Your task to perform on an android device: Go to privacy settings Image 0: 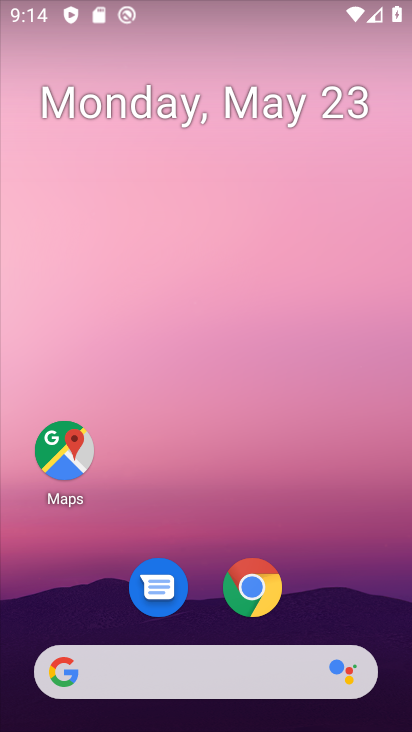
Step 0: drag from (354, 529) to (306, 132)
Your task to perform on an android device: Go to privacy settings Image 1: 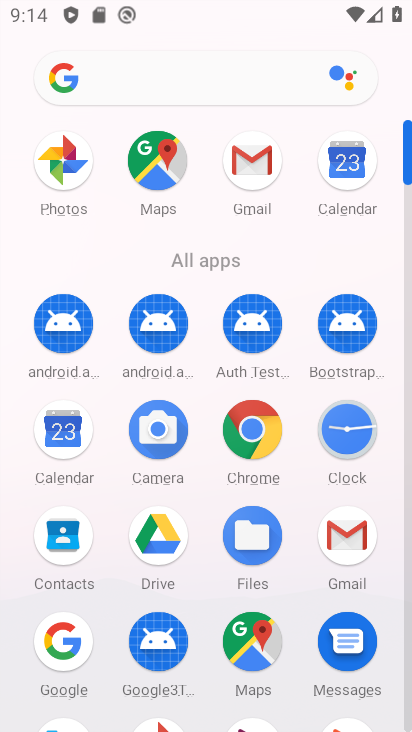
Step 1: drag from (384, 510) to (322, 175)
Your task to perform on an android device: Go to privacy settings Image 2: 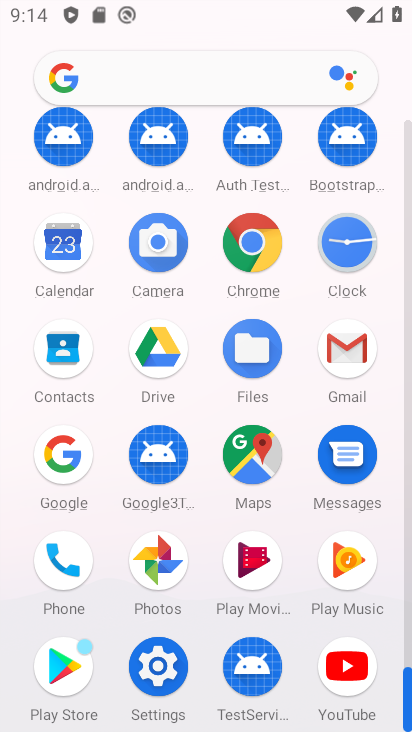
Step 2: click (154, 656)
Your task to perform on an android device: Go to privacy settings Image 3: 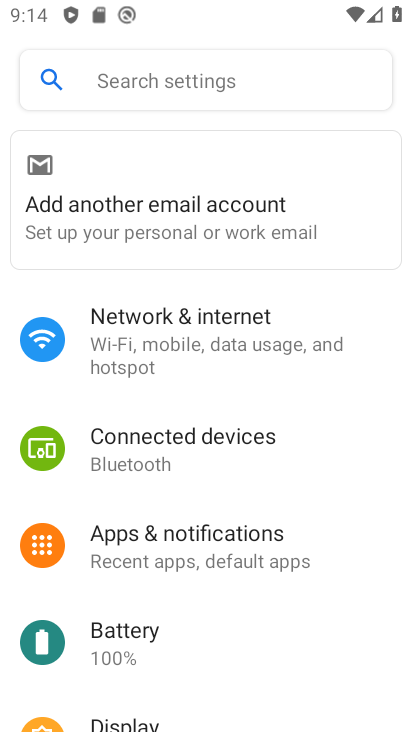
Step 3: drag from (116, 626) to (81, 265)
Your task to perform on an android device: Go to privacy settings Image 4: 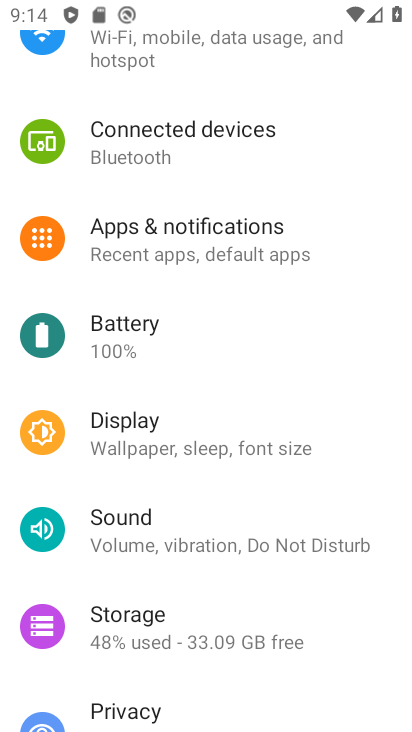
Step 4: drag from (226, 647) to (153, 274)
Your task to perform on an android device: Go to privacy settings Image 5: 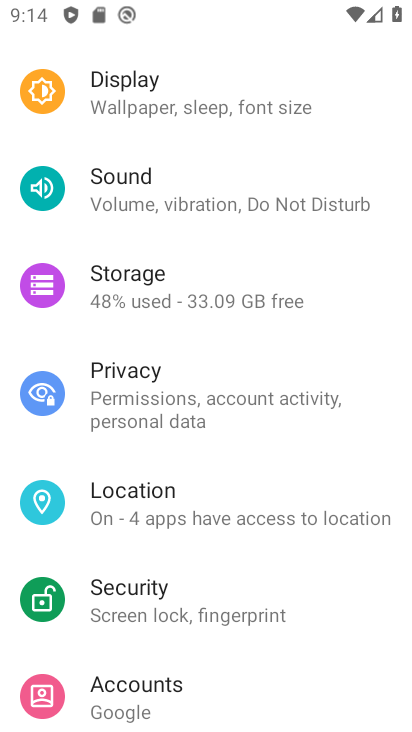
Step 5: click (136, 396)
Your task to perform on an android device: Go to privacy settings Image 6: 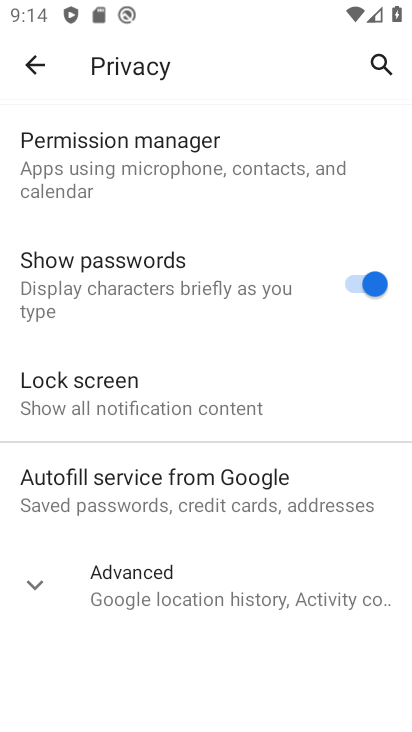
Step 6: task complete